Your task to perform on an android device: toggle airplane mode Image 0: 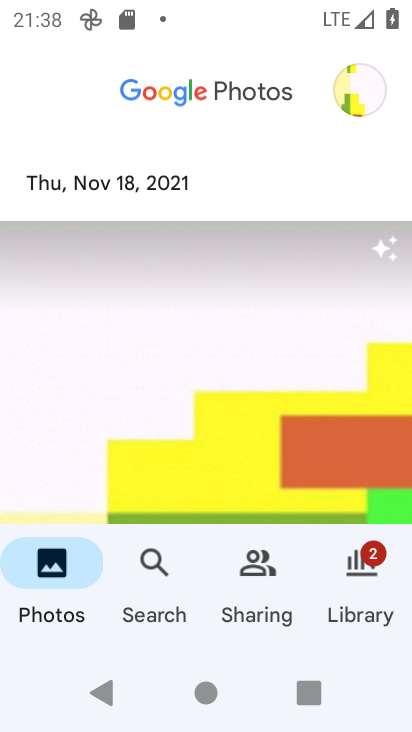
Step 0: press home button
Your task to perform on an android device: toggle airplane mode Image 1: 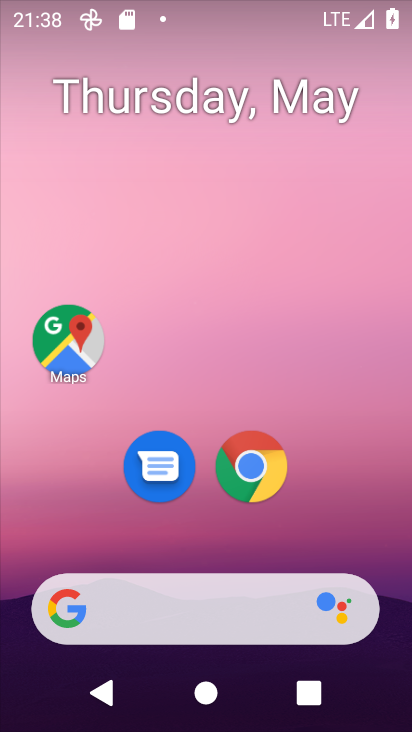
Step 1: drag from (323, 524) to (310, 35)
Your task to perform on an android device: toggle airplane mode Image 2: 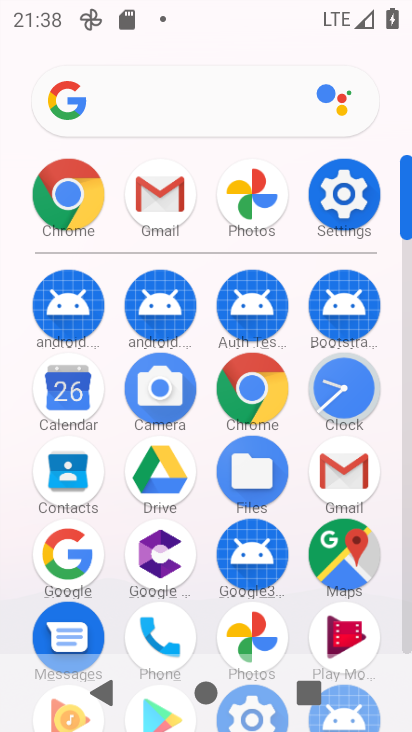
Step 2: click (343, 197)
Your task to perform on an android device: toggle airplane mode Image 3: 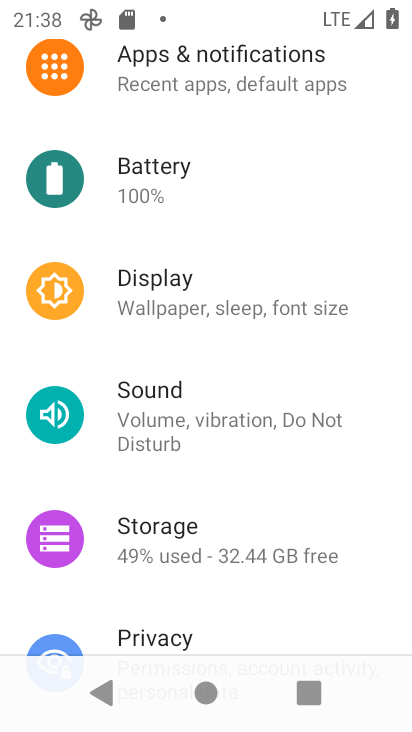
Step 3: drag from (256, 195) to (284, 462)
Your task to perform on an android device: toggle airplane mode Image 4: 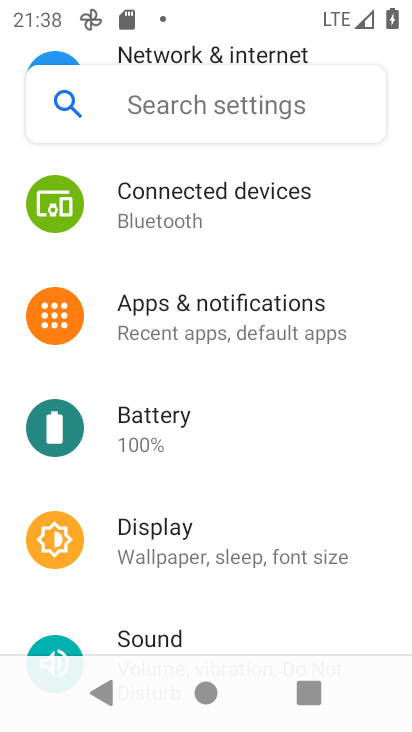
Step 4: drag from (207, 253) to (273, 623)
Your task to perform on an android device: toggle airplane mode Image 5: 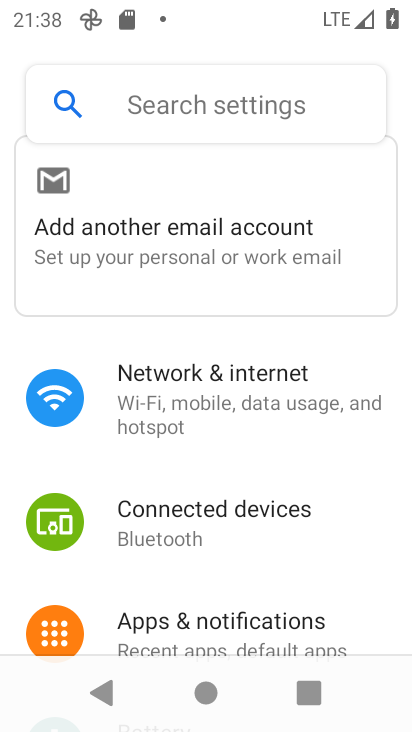
Step 5: click (204, 360)
Your task to perform on an android device: toggle airplane mode Image 6: 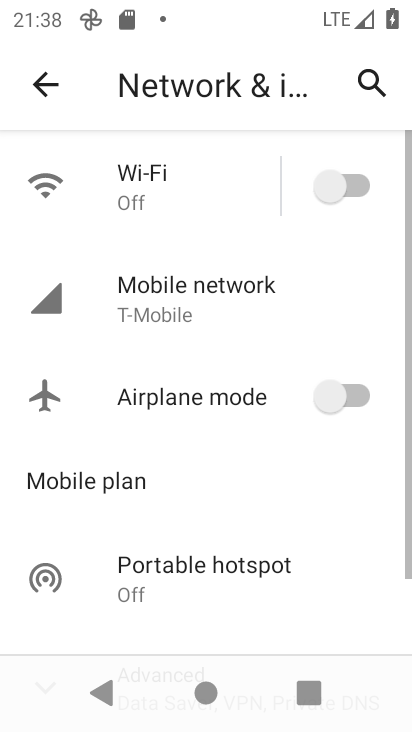
Step 6: task complete